Your task to perform on an android device: Open Google Chrome and open the bookmarks view Image 0: 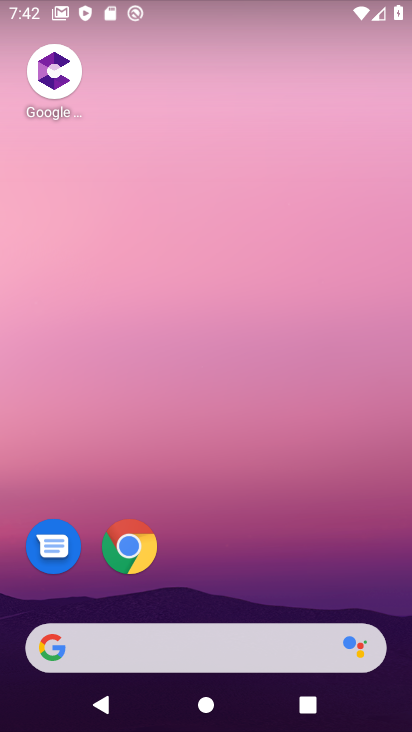
Step 0: drag from (282, 596) to (298, 33)
Your task to perform on an android device: Open Google Chrome and open the bookmarks view Image 1: 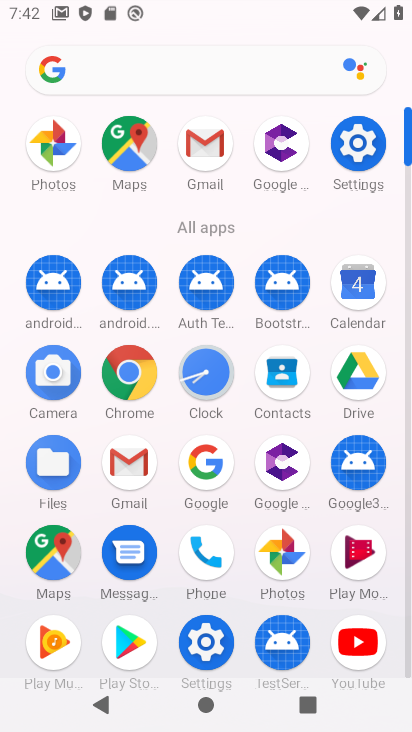
Step 1: click (118, 364)
Your task to perform on an android device: Open Google Chrome and open the bookmarks view Image 2: 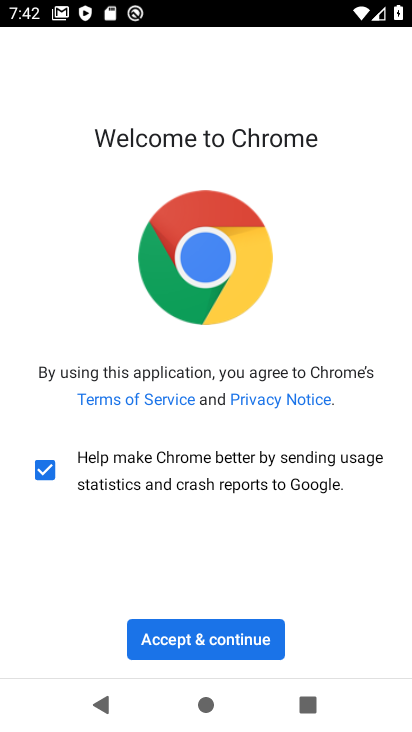
Step 2: click (229, 637)
Your task to perform on an android device: Open Google Chrome and open the bookmarks view Image 3: 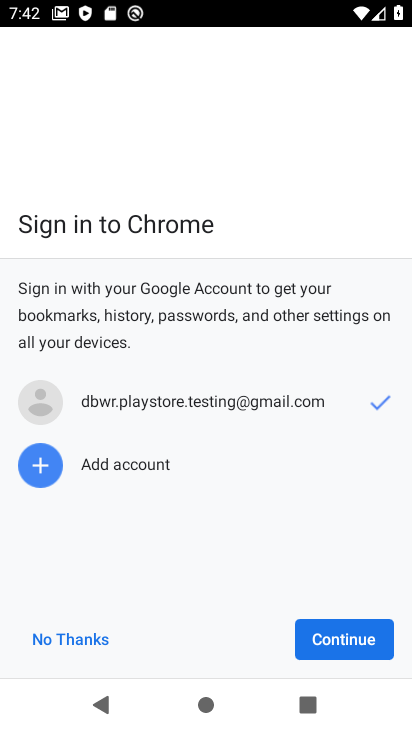
Step 3: click (324, 633)
Your task to perform on an android device: Open Google Chrome and open the bookmarks view Image 4: 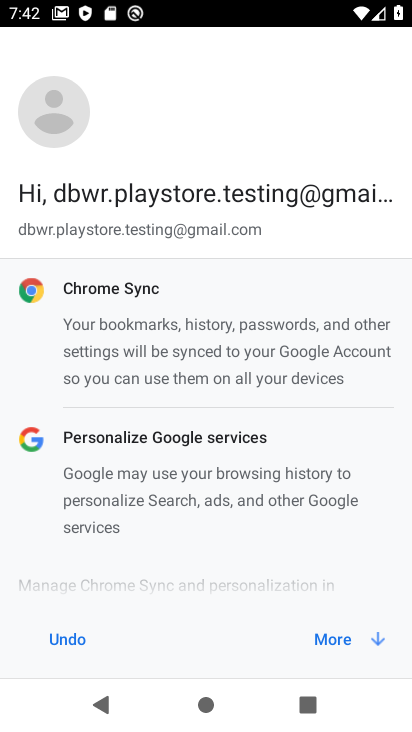
Step 4: click (339, 644)
Your task to perform on an android device: Open Google Chrome and open the bookmarks view Image 5: 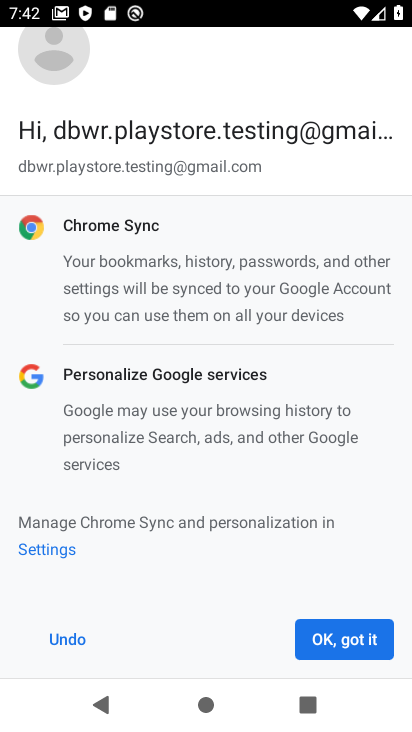
Step 5: click (340, 645)
Your task to perform on an android device: Open Google Chrome and open the bookmarks view Image 6: 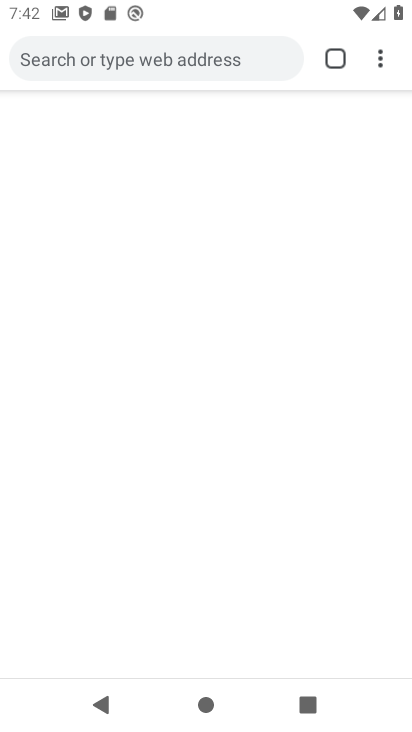
Step 6: click (378, 57)
Your task to perform on an android device: Open Google Chrome and open the bookmarks view Image 7: 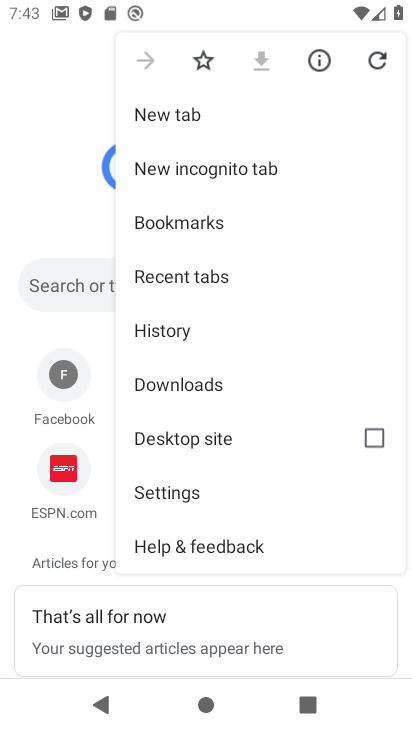
Step 7: click (193, 220)
Your task to perform on an android device: Open Google Chrome and open the bookmarks view Image 8: 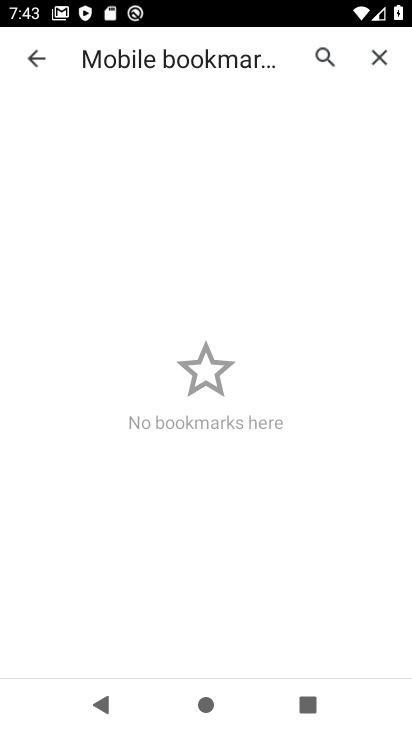
Step 8: task complete